Your task to perform on an android device: Check the weather Image 0: 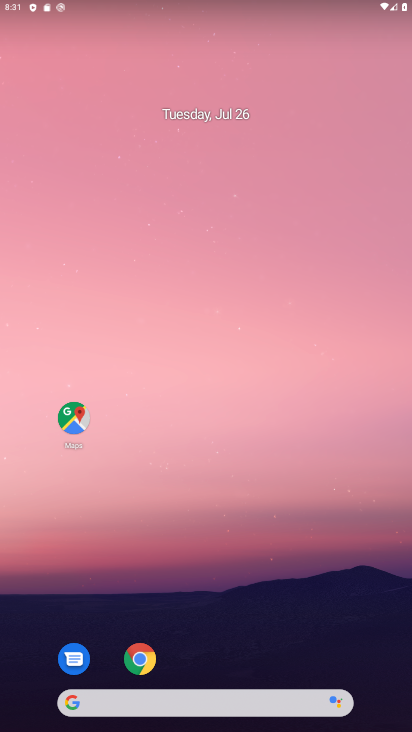
Step 0: drag from (8, 264) to (382, 250)
Your task to perform on an android device: Check the weather Image 1: 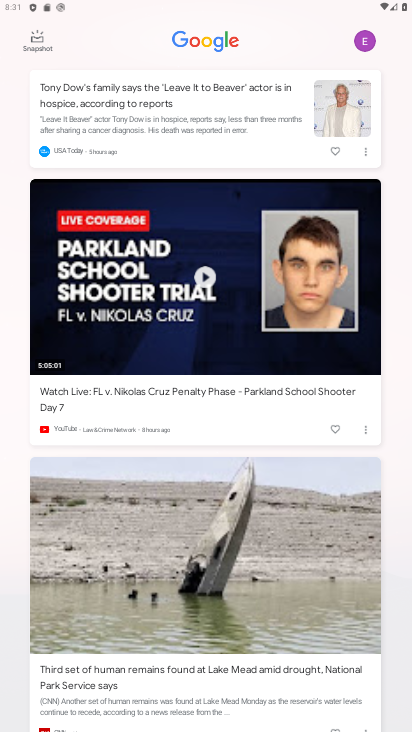
Step 1: drag from (216, 122) to (220, 563)
Your task to perform on an android device: Check the weather Image 2: 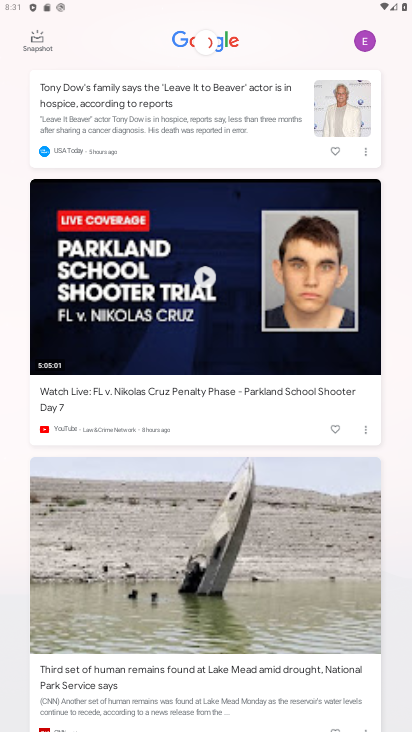
Step 2: drag from (407, 333) to (29, 308)
Your task to perform on an android device: Check the weather Image 3: 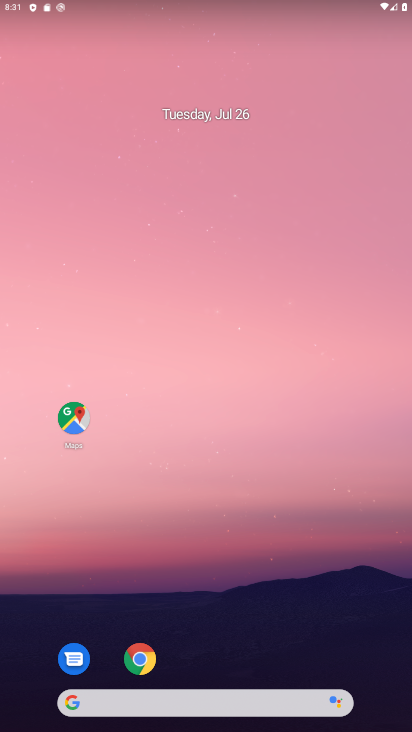
Step 3: click (164, 705)
Your task to perform on an android device: Check the weather Image 4: 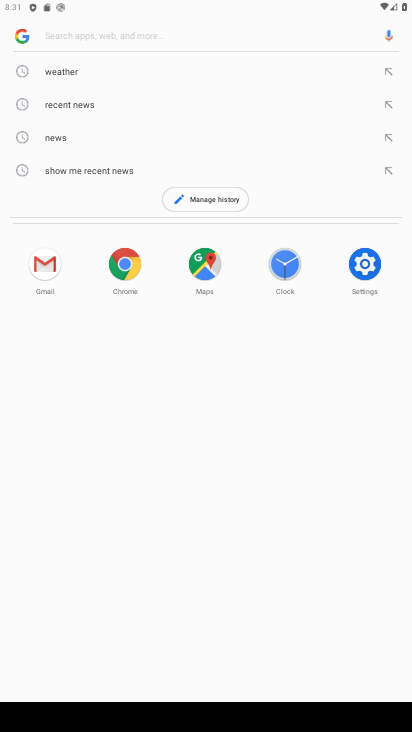
Step 4: click (80, 65)
Your task to perform on an android device: Check the weather Image 5: 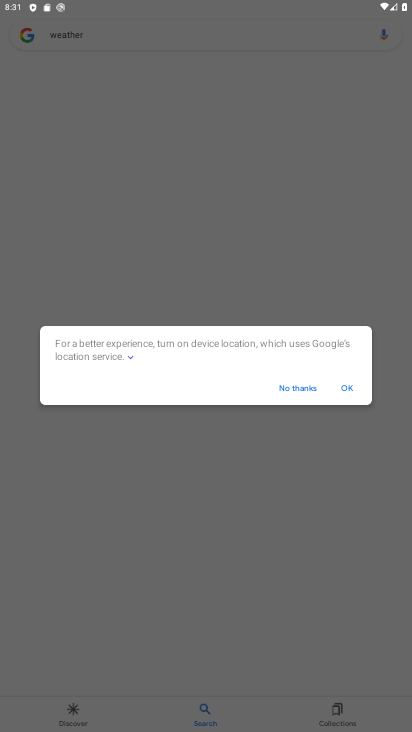
Step 5: click (344, 388)
Your task to perform on an android device: Check the weather Image 6: 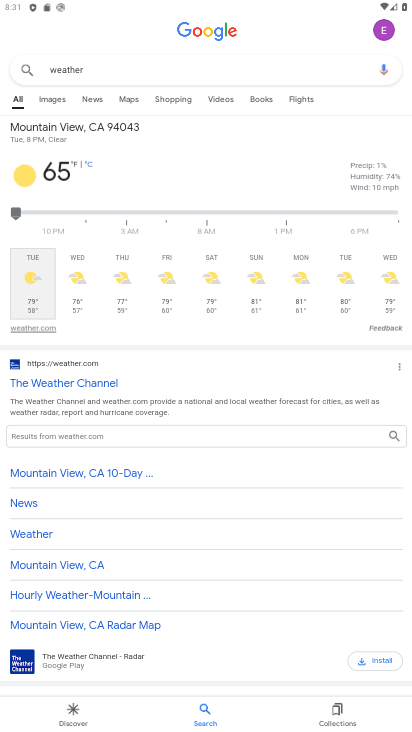
Step 6: task complete